Your task to perform on an android device: What's on my calendar today? Image 0: 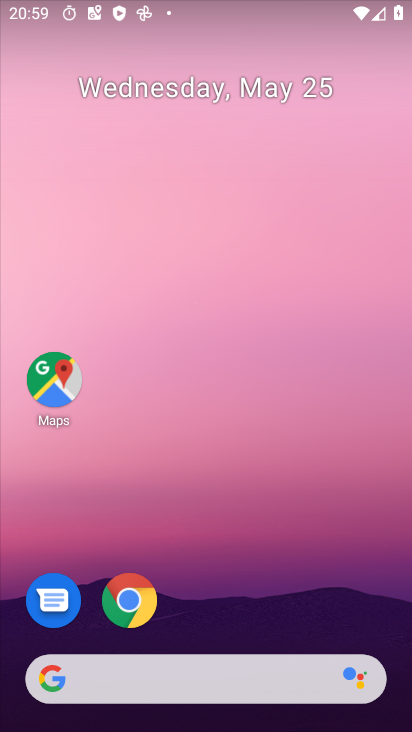
Step 0: drag from (355, 607) to (279, 199)
Your task to perform on an android device: What's on my calendar today? Image 1: 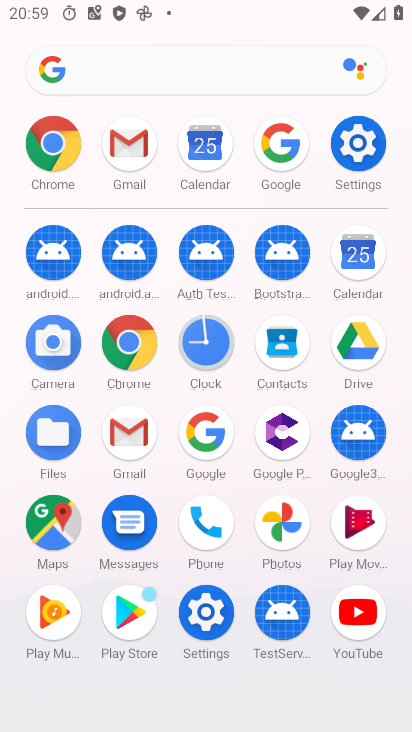
Step 1: click (359, 242)
Your task to perform on an android device: What's on my calendar today? Image 2: 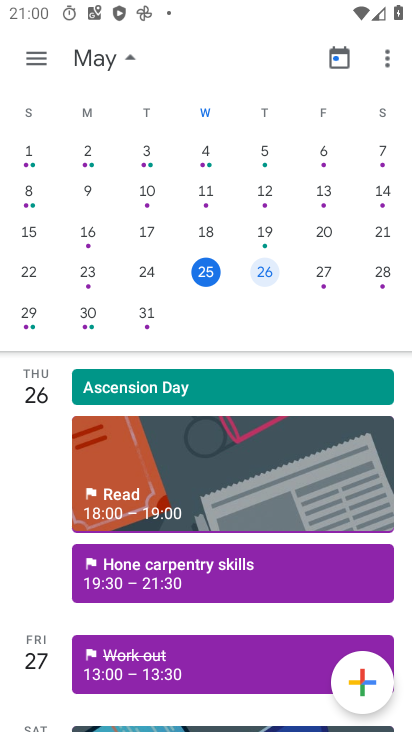
Step 2: task complete